Your task to perform on an android device: toggle javascript in the chrome app Image 0: 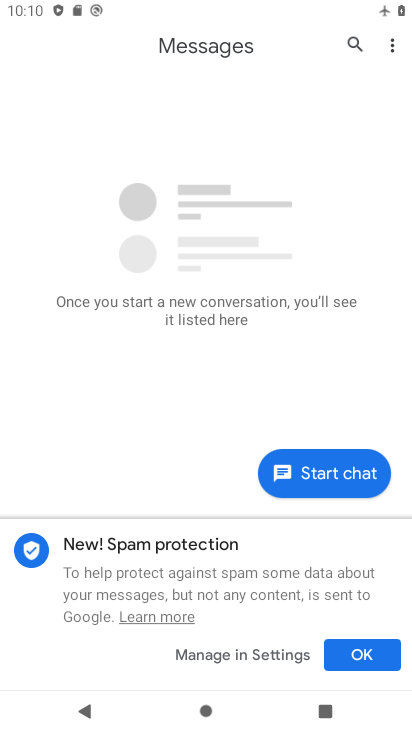
Step 0: press home button
Your task to perform on an android device: toggle javascript in the chrome app Image 1: 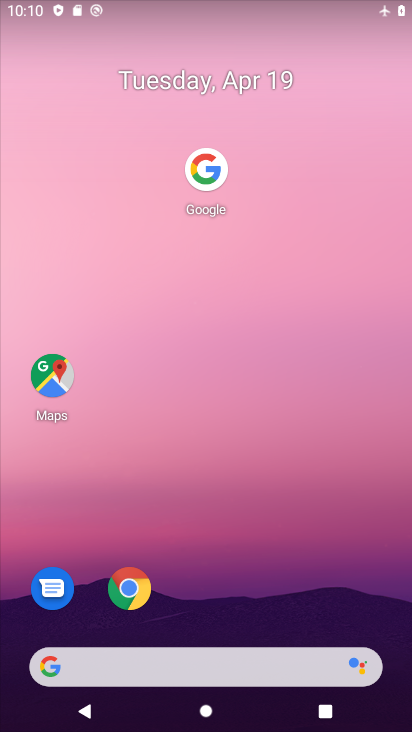
Step 1: click (125, 586)
Your task to perform on an android device: toggle javascript in the chrome app Image 2: 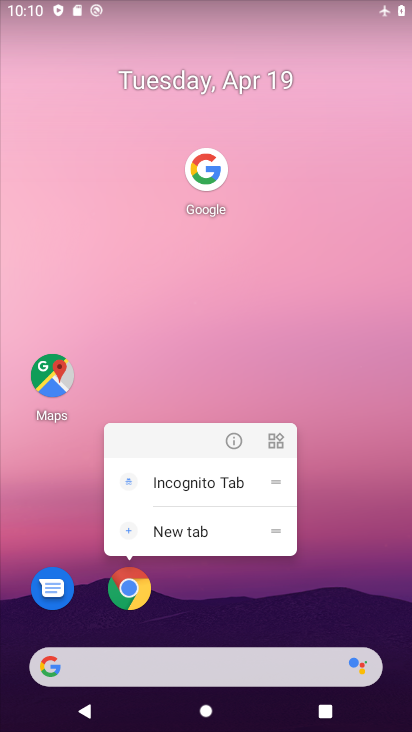
Step 2: click (125, 586)
Your task to perform on an android device: toggle javascript in the chrome app Image 3: 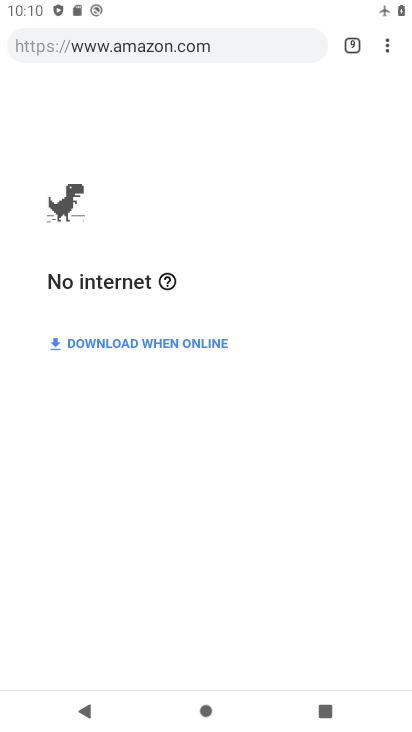
Step 3: click (383, 47)
Your task to perform on an android device: toggle javascript in the chrome app Image 4: 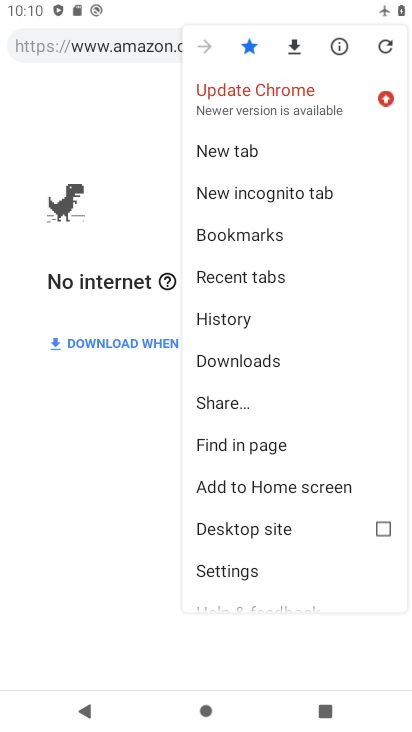
Step 4: click (237, 570)
Your task to perform on an android device: toggle javascript in the chrome app Image 5: 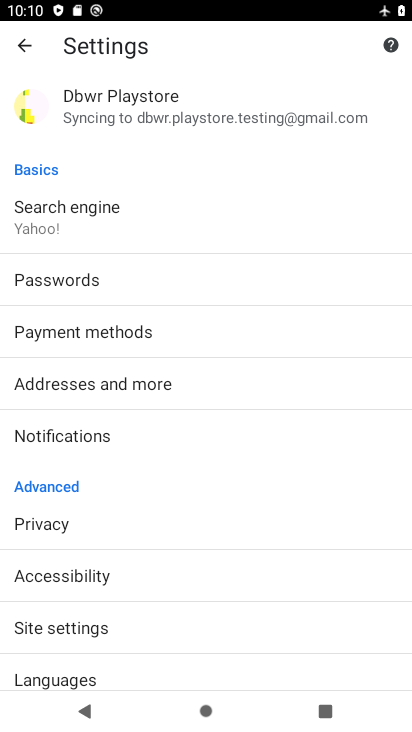
Step 5: click (76, 626)
Your task to perform on an android device: toggle javascript in the chrome app Image 6: 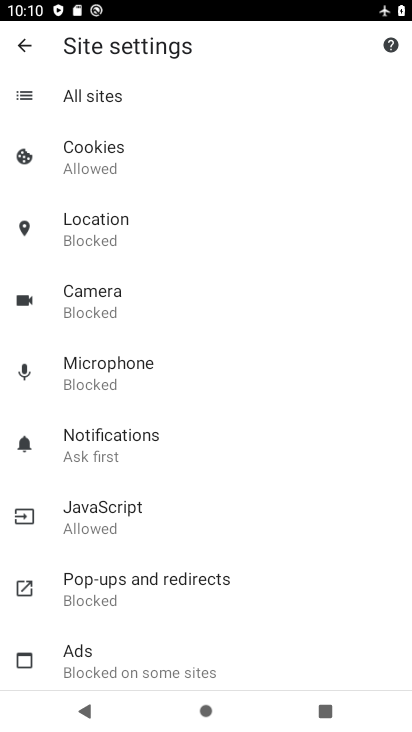
Step 6: click (104, 509)
Your task to perform on an android device: toggle javascript in the chrome app Image 7: 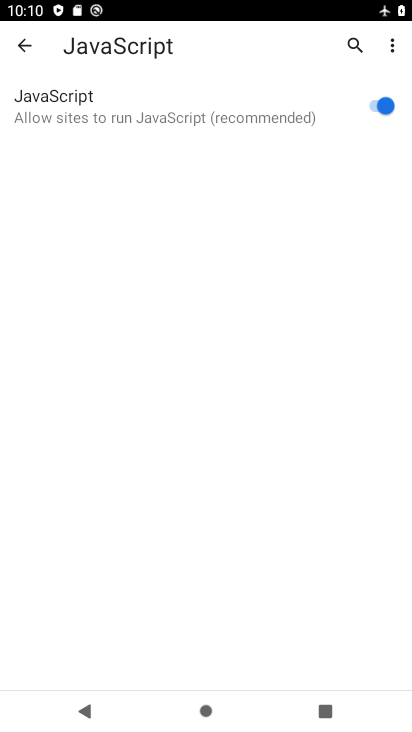
Step 7: click (378, 107)
Your task to perform on an android device: toggle javascript in the chrome app Image 8: 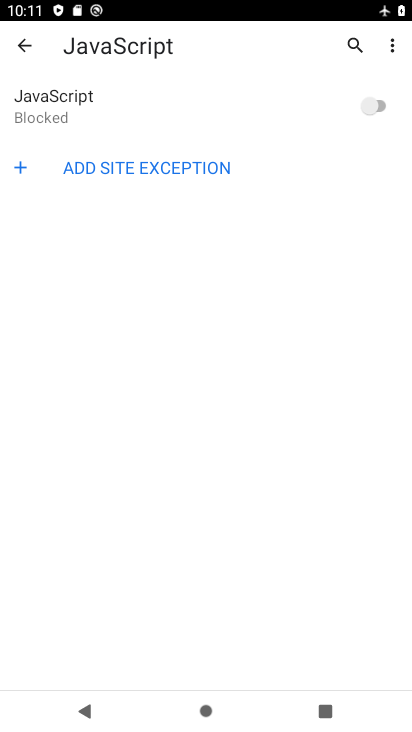
Step 8: task complete